Your task to perform on an android device: Go to Maps Image 0: 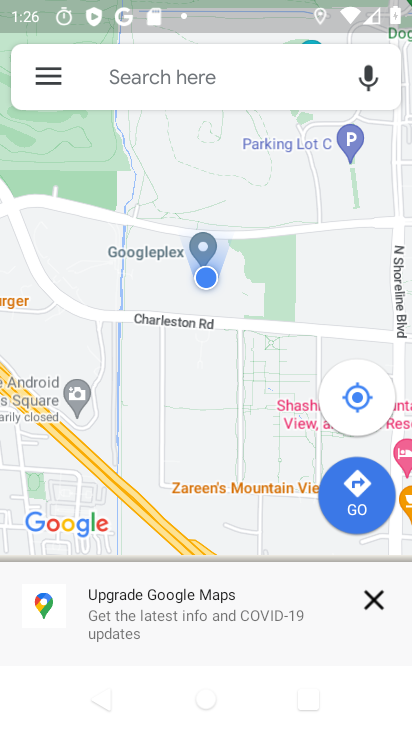
Step 0: press home button
Your task to perform on an android device: Go to Maps Image 1: 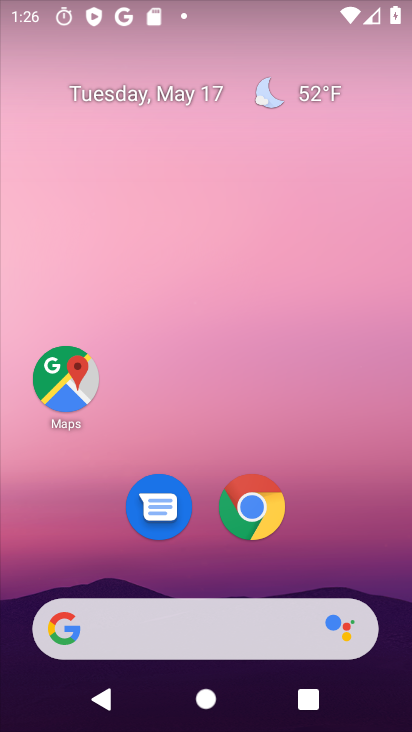
Step 1: click (67, 385)
Your task to perform on an android device: Go to Maps Image 2: 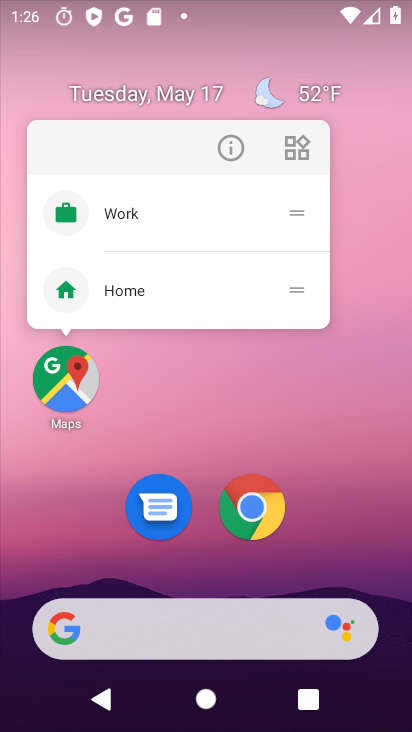
Step 2: click (239, 390)
Your task to perform on an android device: Go to Maps Image 3: 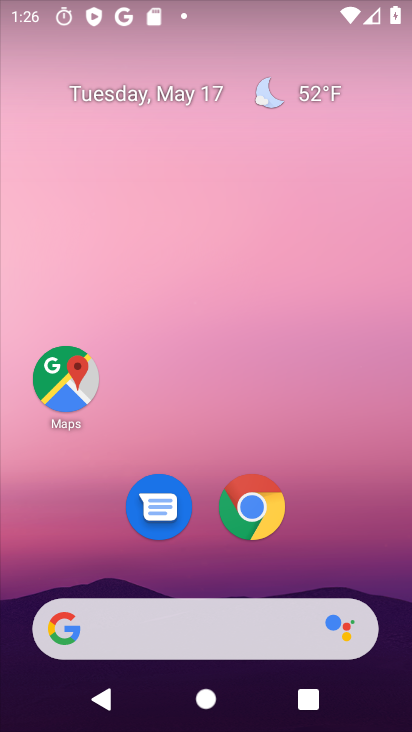
Step 3: click (71, 385)
Your task to perform on an android device: Go to Maps Image 4: 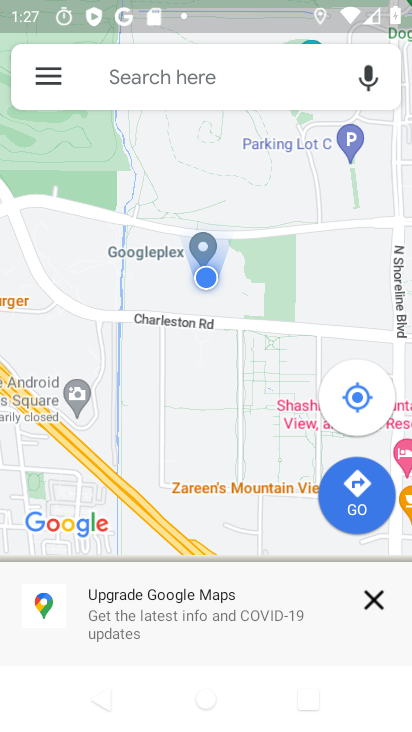
Step 4: task complete